Your task to perform on an android device: Go to ESPN.com Image 0: 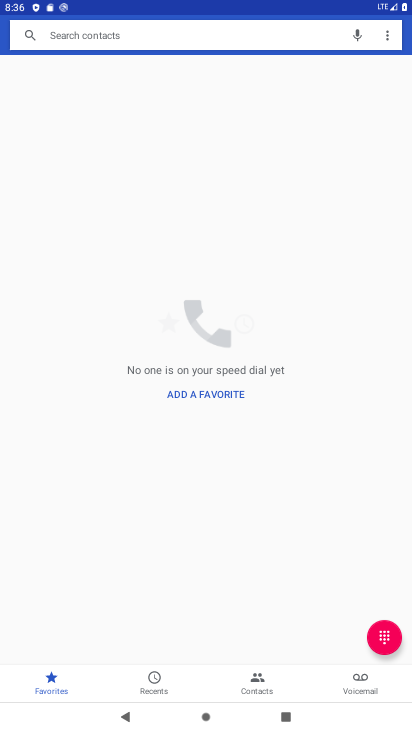
Step 0: press home button
Your task to perform on an android device: Go to ESPN.com Image 1: 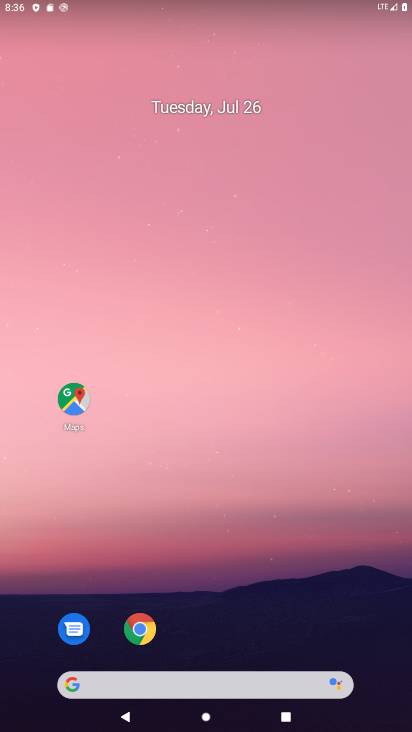
Step 1: click (138, 625)
Your task to perform on an android device: Go to ESPN.com Image 2: 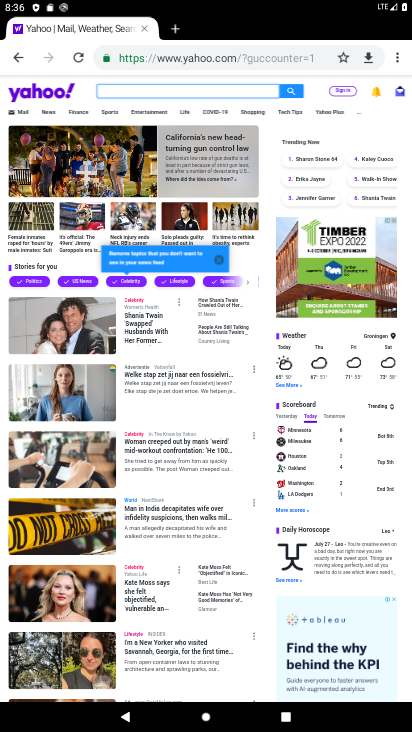
Step 2: click (175, 25)
Your task to perform on an android device: Go to ESPN.com Image 3: 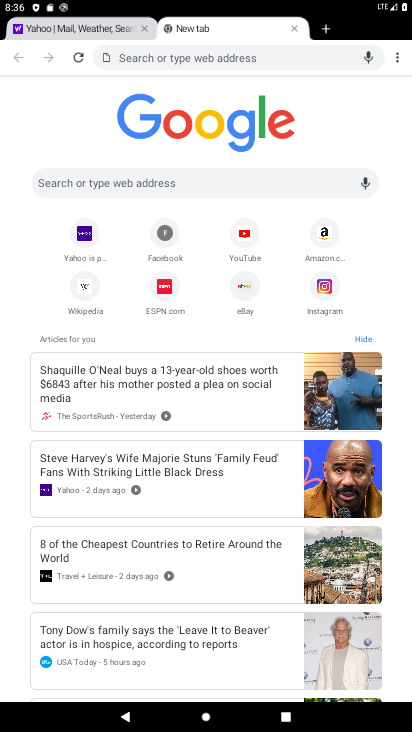
Step 3: click (170, 295)
Your task to perform on an android device: Go to ESPN.com Image 4: 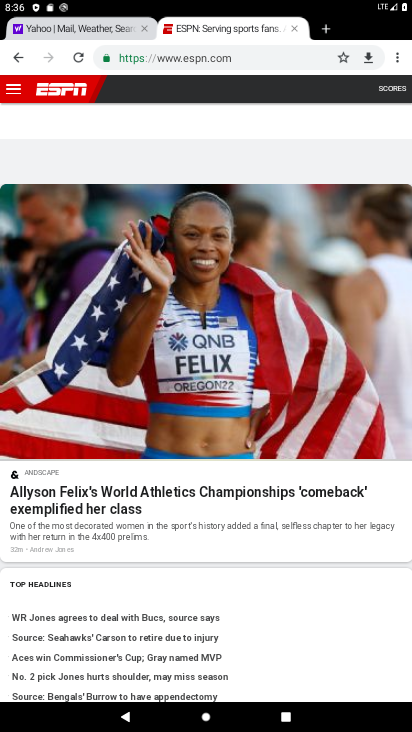
Step 4: task complete